Your task to perform on an android device: Go to Amazon Image 0: 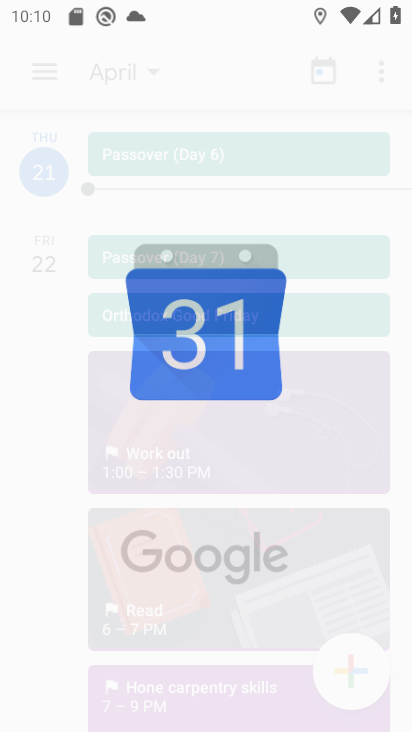
Step 0: drag from (200, 616) to (174, 99)
Your task to perform on an android device: Go to Amazon Image 1: 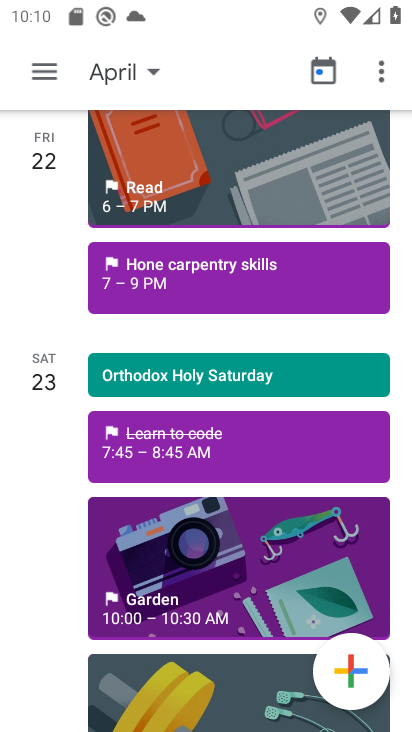
Step 1: press home button
Your task to perform on an android device: Go to Amazon Image 2: 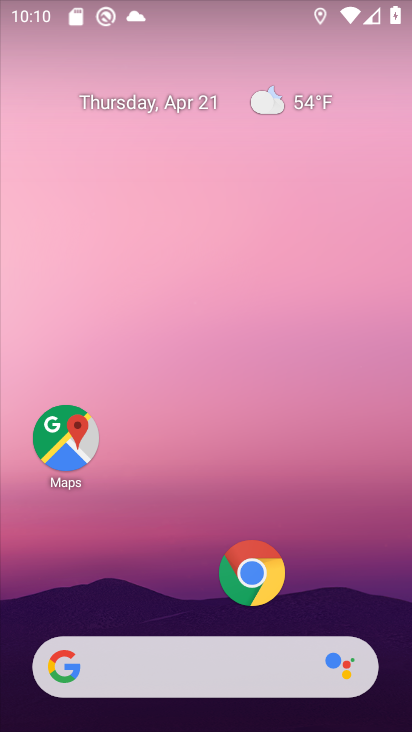
Step 2: click (244, 574)
Your task to perform on an android device: Go to Amazon Image 3: 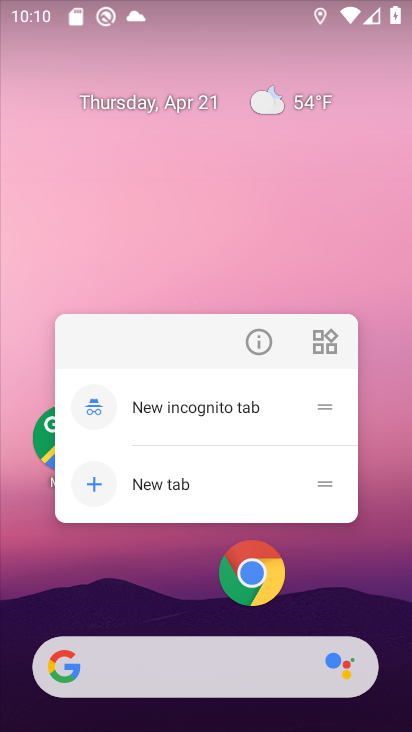
Step 3: click (260, 585)
Your task to perform on an android device: Go to Amazon Image 4: 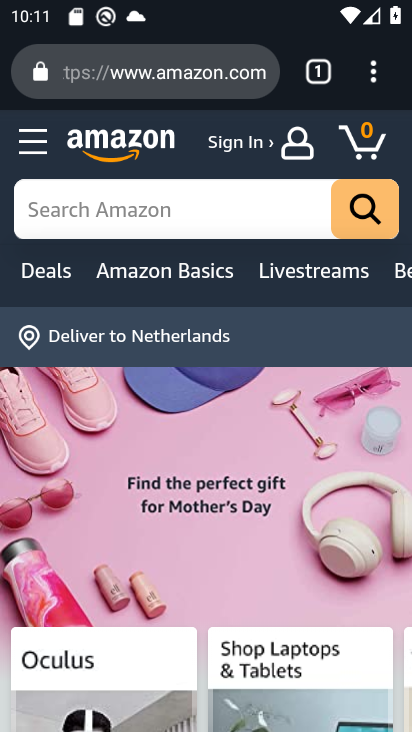
Step 4: task complete